Your task to perform on an android device: Open the phone app and click the voicemail tab. Image 0: 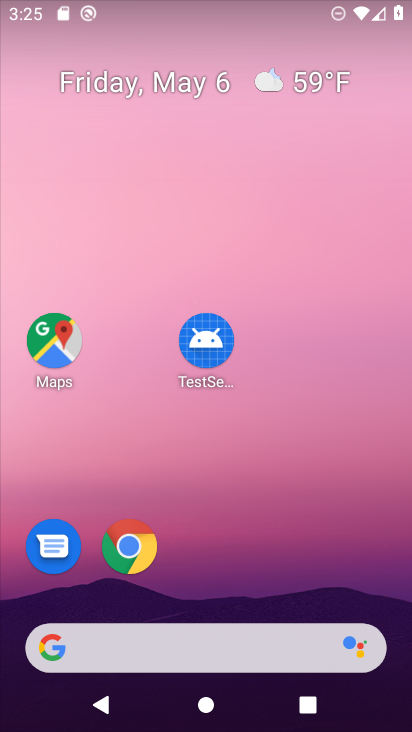
Step 0: drag from (242, 608) to (356, 201)
Your task to perform on an android device: Open the phone app and click the voicemail tab. Image 1: 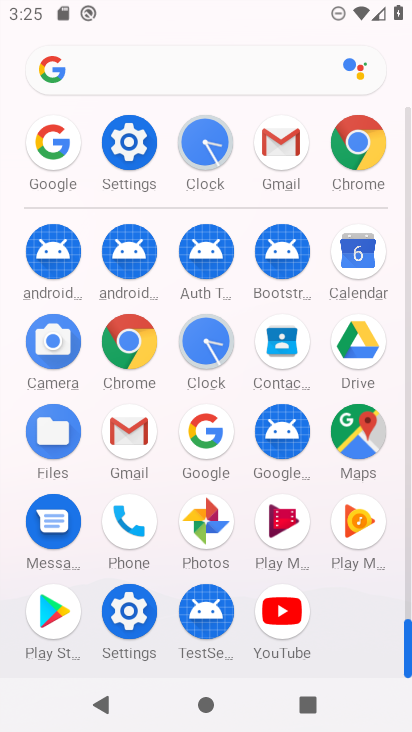
Step 1: click (121, 524)
Your task to perform on an android device: Open the phone app and click the voicemail tab. Image 2: 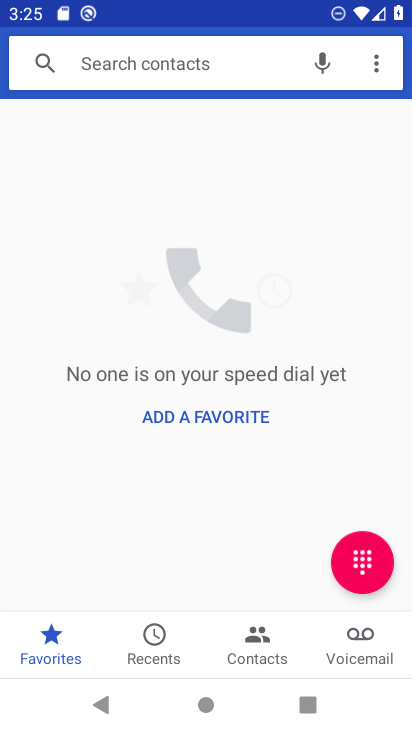
Step 2: click (364, 650)
Your task to perform on an android device: Open the phone app and click the voicemail tab. Image 3: 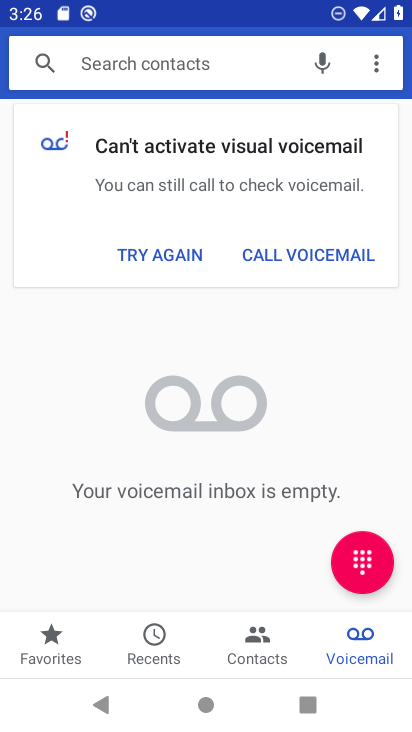
Step 3: task complete